Your task to perform on an android device: change the upload size in google photos Image 0: 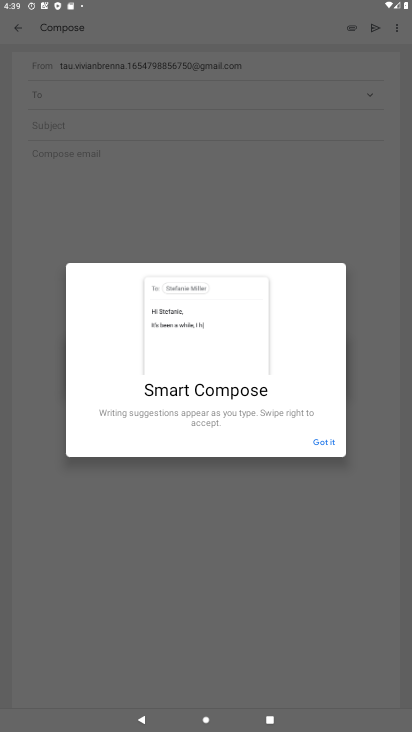
Step 0: press home button
Your task to perform on an android device: change the upload size in google photos Image 1: 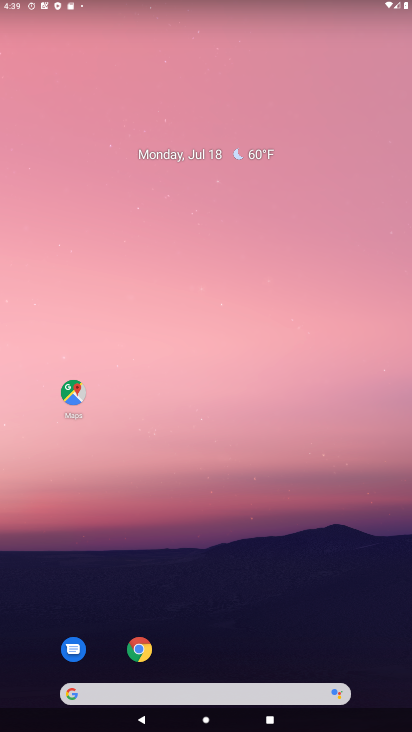
Step 1: drag from (197, 650) to (214, 0)
Your task to perform on an android device: change the upload size in google photos Image 2: 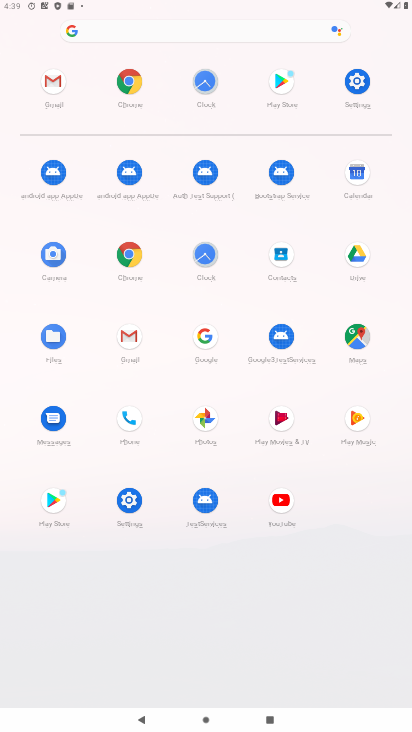
Step 2: click (197, 423)
Your task to perform on an android device: change the upload size in google photos Image 3: 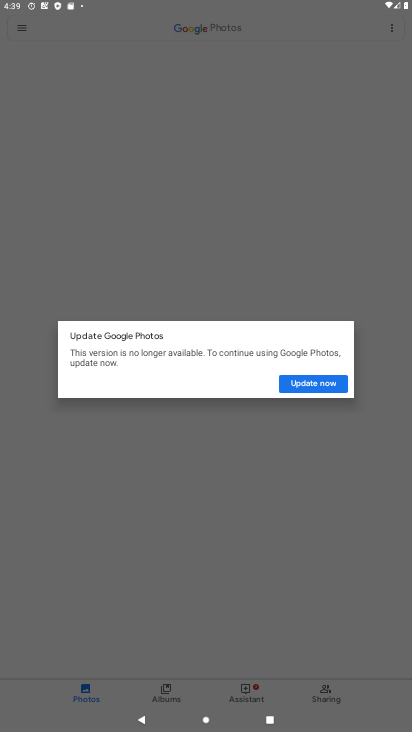
Step 3: click (312, 383)
Your task to perform on an android device: change the upload size in google photos Image 4: 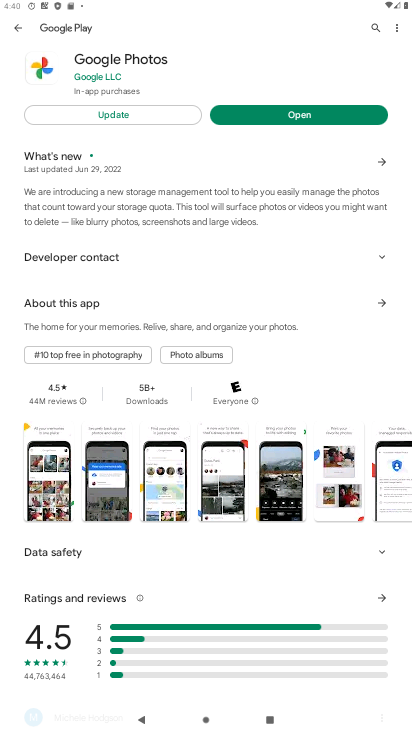
Step 4: click (300, 114)
Your task to perform on an android device: change the upload size in google photos Image 5: 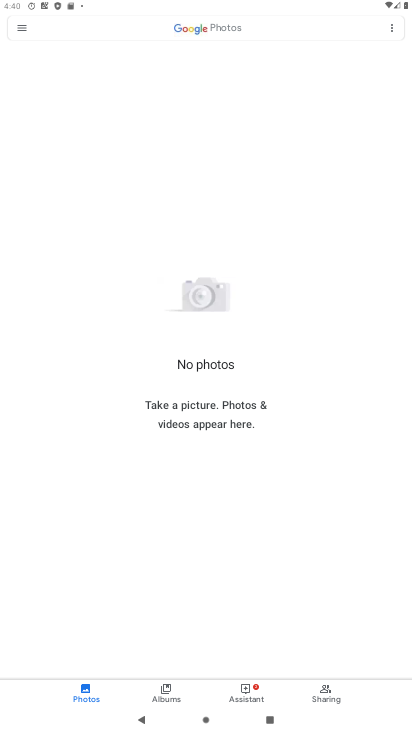
Step 5: click (20, 24)
Your task to perform on an android device: change the upload size in google photos Image 6: 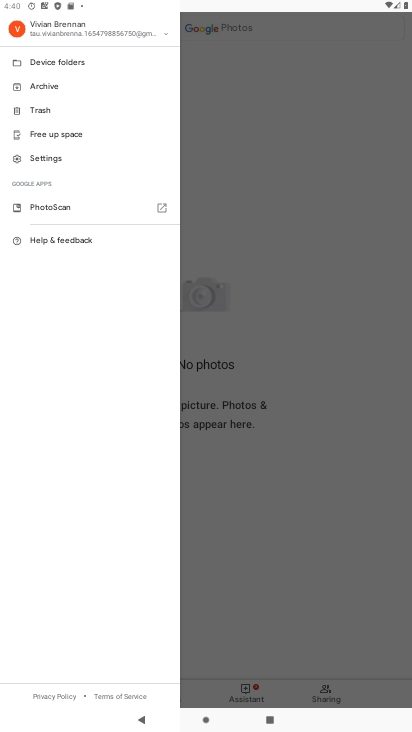
Step 6: click (43, 159)
Your task to perform on an android device: change the upload size in google photos Image 7: 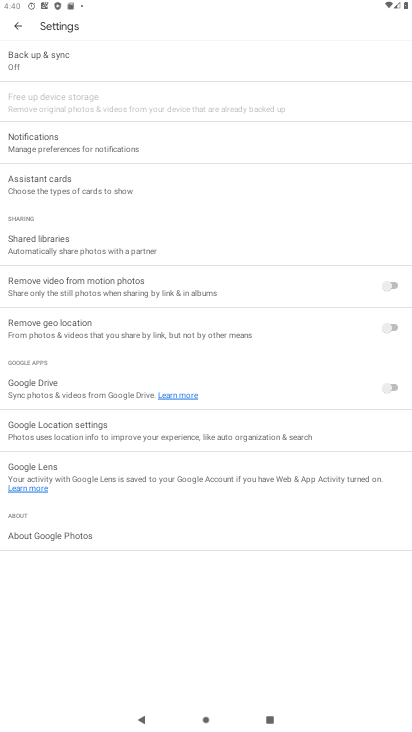
Step 7: click (56, 59)
Your task to perform on an android device: change the upload size in google photos Image 8: 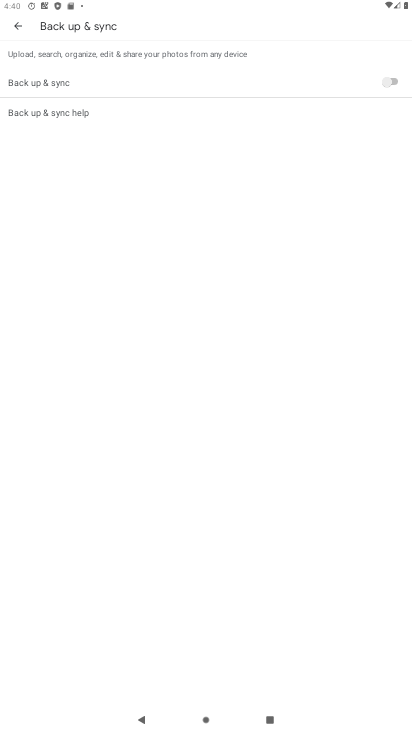
Step 8: click (392, 82)
Your task to perform on an android device: change the upload size in google photos Image 9: 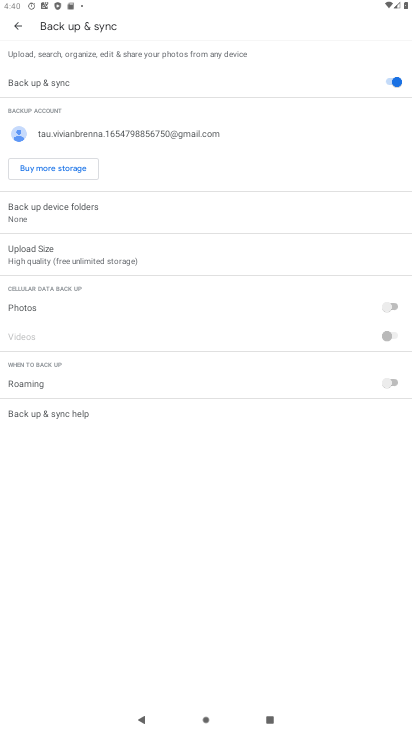
Step 9: click (90, 266)
Your task to perform on an android device: change the upload size in google photos Image 10: 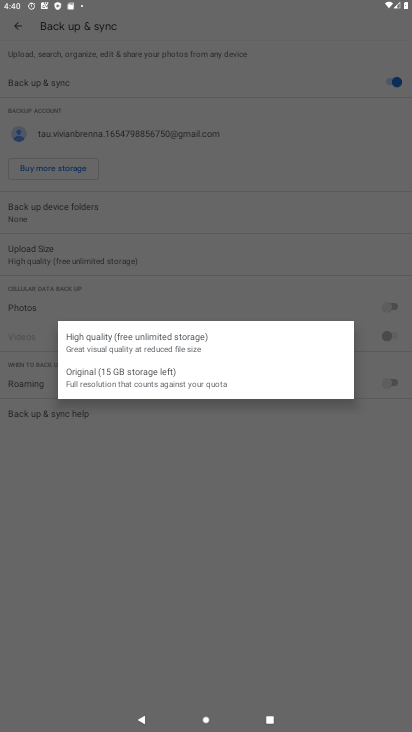
Step 10: click (114, 381)
Your task to perform on an android device: change the upload size in google photos Image 11: 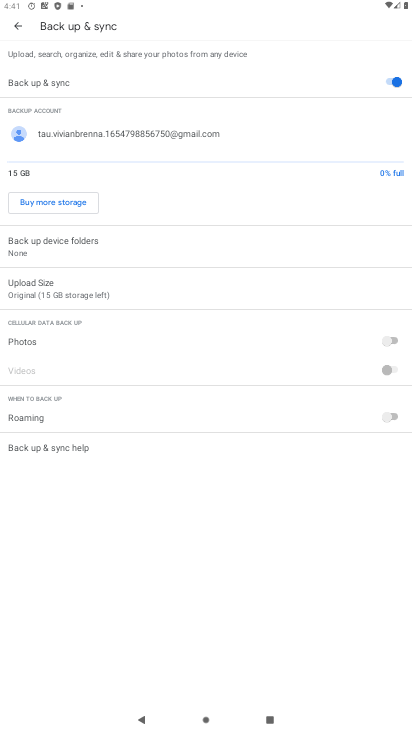
Step 11: task complete